Your task to perform on an android device: delete the emails in spam in the gmail app Image 0: 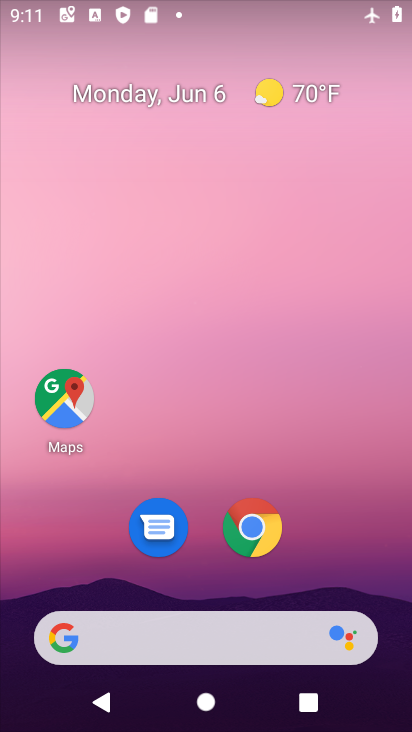
Step 0: drag from (203, 677) to (228, 199)
Your task to perform on an android device: delete the emails in spam in the gmail app Image 1: 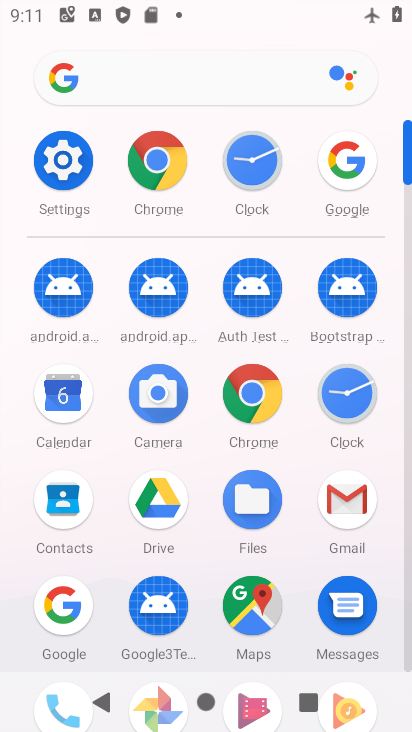
Step 1: click (360, 505)
Your task to perform on an android device: delete the emails in spam in the gmail app Image 2: 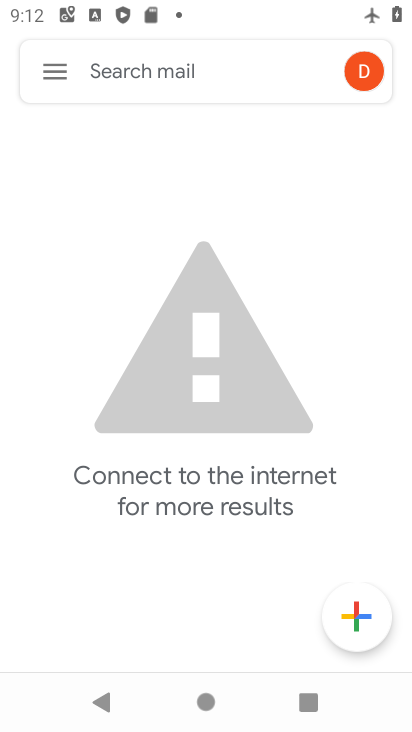
Step 2: click (54, 83)
Your task to perform on an android device: delete the emails in spam in the gmail app Image 3: 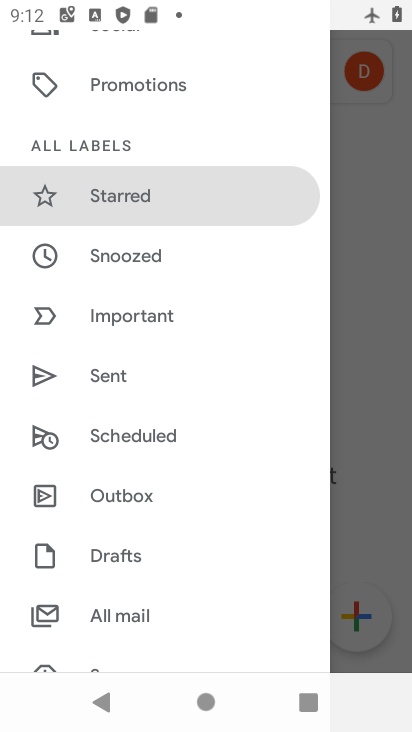
Step 3: click (118, 613)
Your task to perform on an android device: delete the emails in spam in the gmail app Image 4: 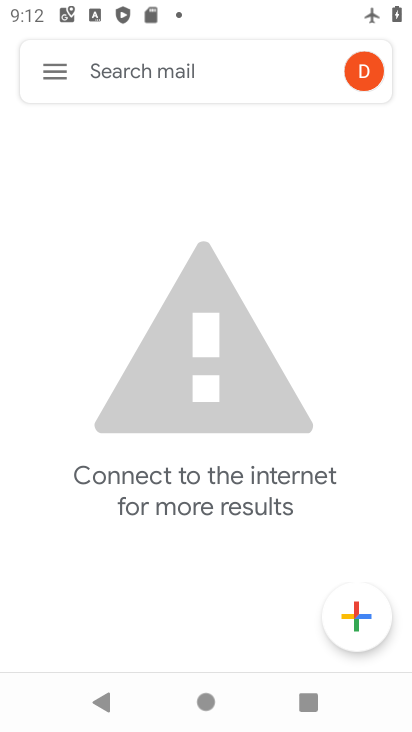
Step 4: task complete